Your task to perform on an android device: toggle sleep mode Image 0: 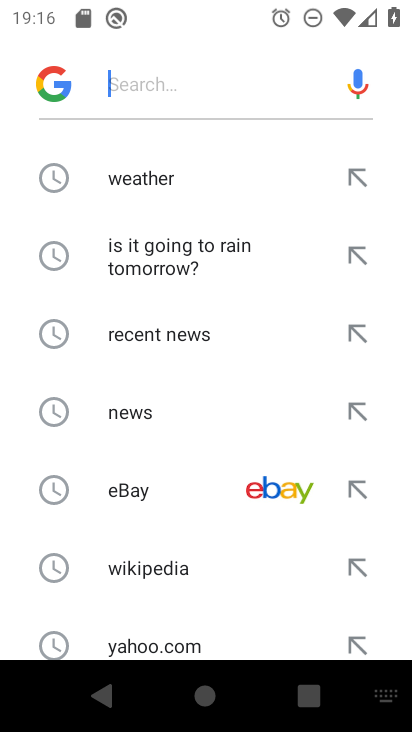
Step 0: press home button
Your task to perform on an android device: toggle sleep mode Image 1: 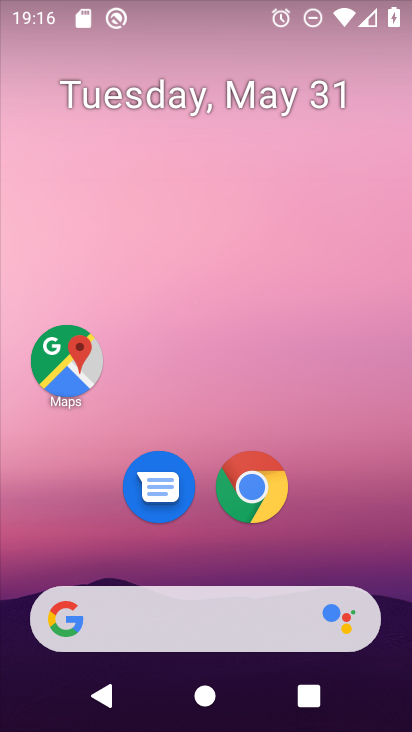
Step 1: drag from (331, 541) to (174, 6)
Your task to perform on an android device: toggle sleep mode Image 2: 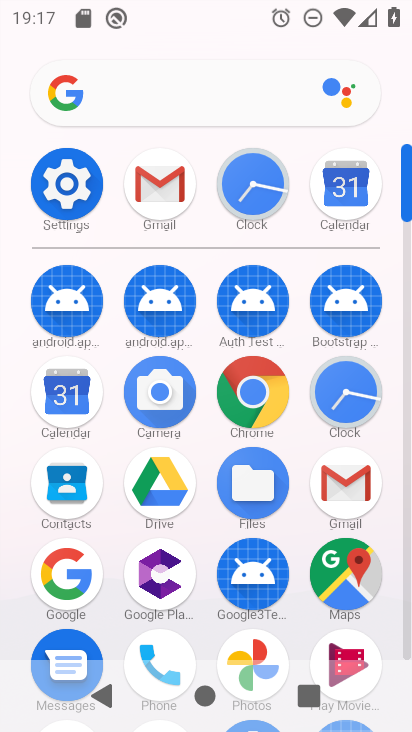
Step 2: click (67, 186)
Your task to perform on an android device: toggle sleep mode Image 3: 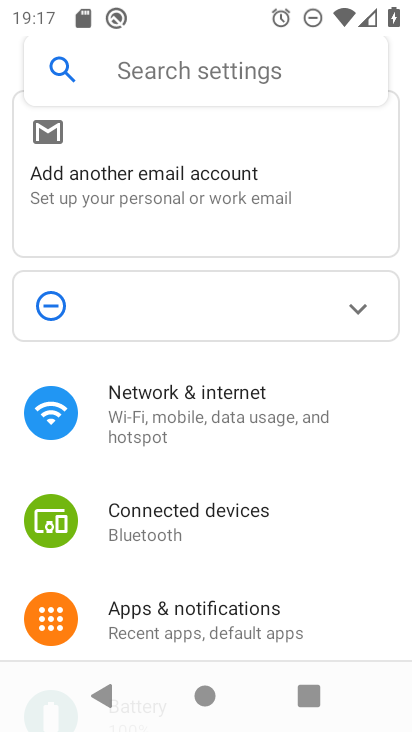
Step 3: drag from (248, 578) to (194, 279)
Your task to perform on an android device: toggle sleep mode Image 4: 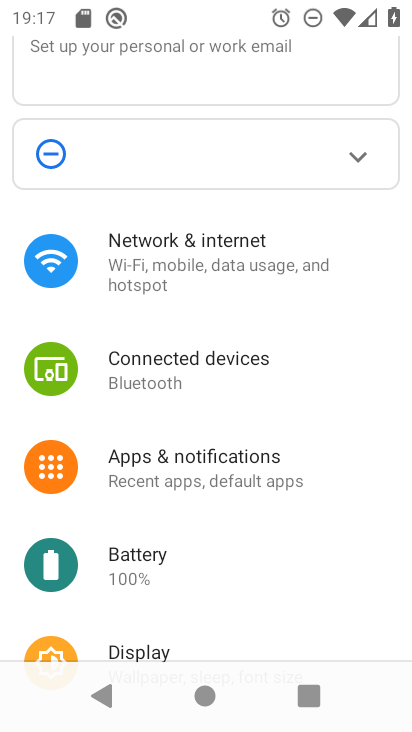
Step 4: drag from (192, 591) to (191, 347)
Your task to perform on an android device: toggle sleep mode Image 5: 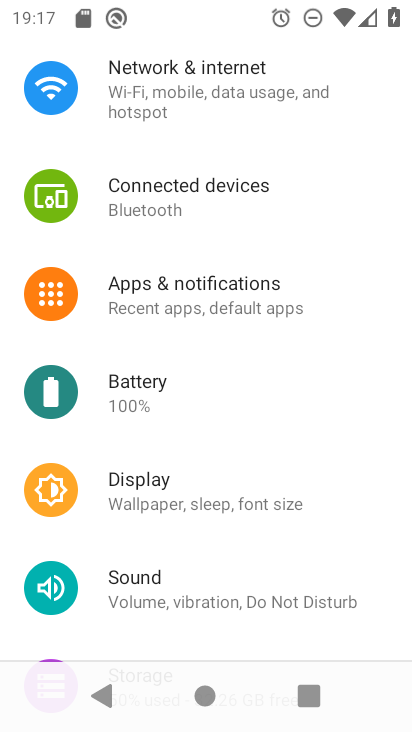
Step 5: click (159, 607)
Your task to perform on an android device: toggle sleep mode Image 6: 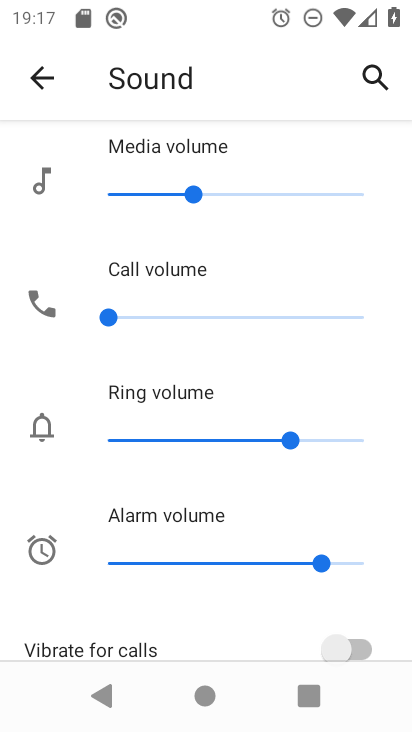
Step 6: task complete